Your task to perform on an android device: Open the stopwatch Image 0: 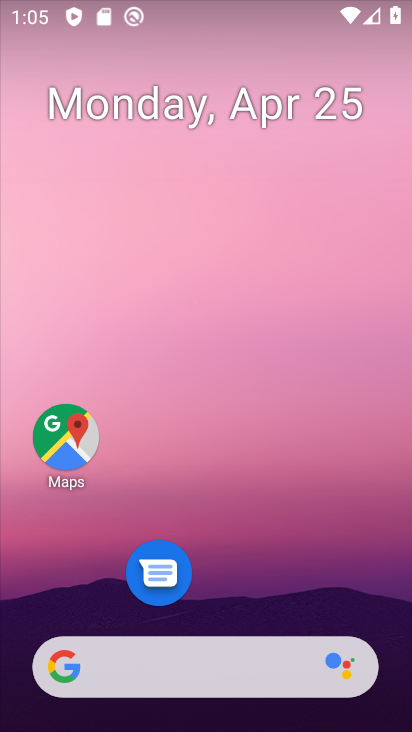
Step 0: drag from (231, 596) to (324, 123)
Your task to perform on an android device: Open the stopwatch Image 1: 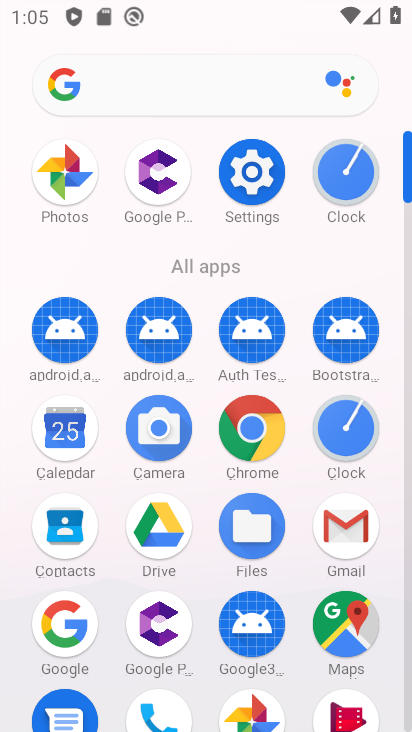
Step 1: click (339, 168)
Your task to perform on an android device: Open the stopwatch Image 2: 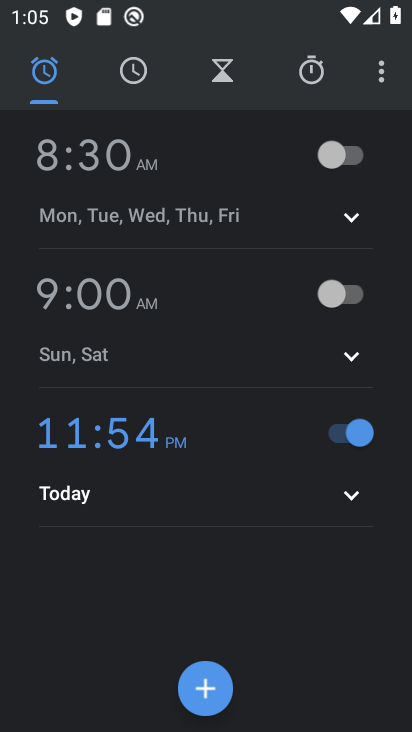
Step 2: click (323, 77)
Your task to perform on an android device: Open the stopwatch Image 3: 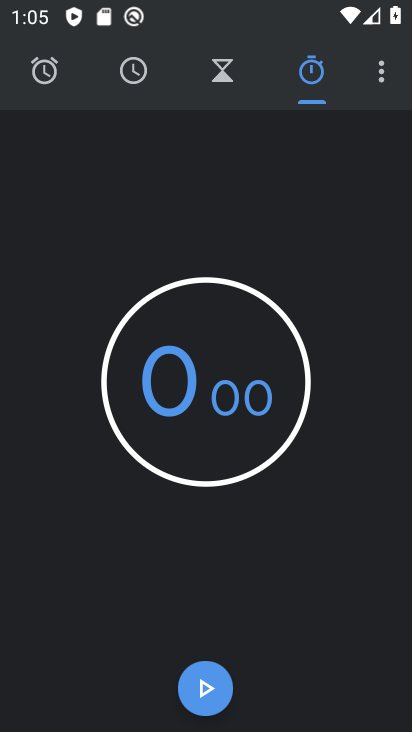
Step 3: task complete